Your task to perform on an android device: Open calendar and show me the third week of next month Image 0: 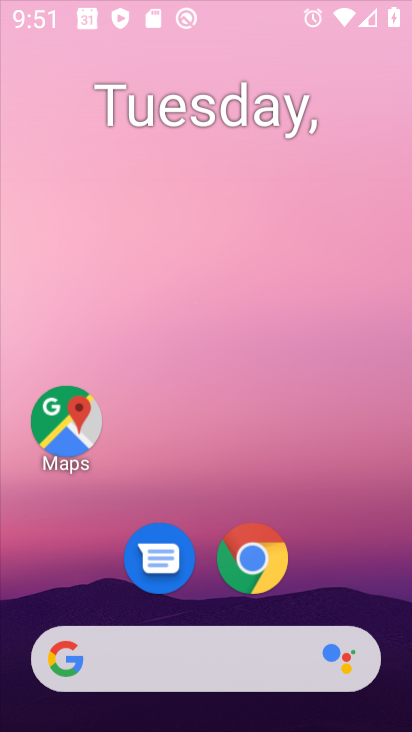
Step 0: drag from (352, 650) to (29, 26)
Your task to perform on an android device: Open calendar and show me the third week of next month Image 1: 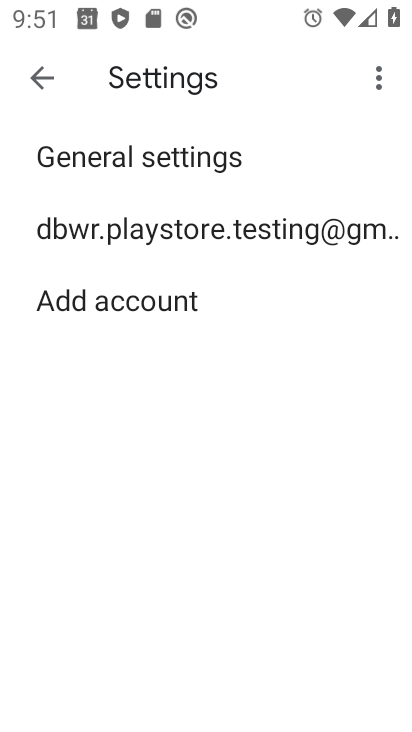
Step 1: click (36, 75)
Your task to perform on an android device: Open calendar and show me the third week of next month Image 2: 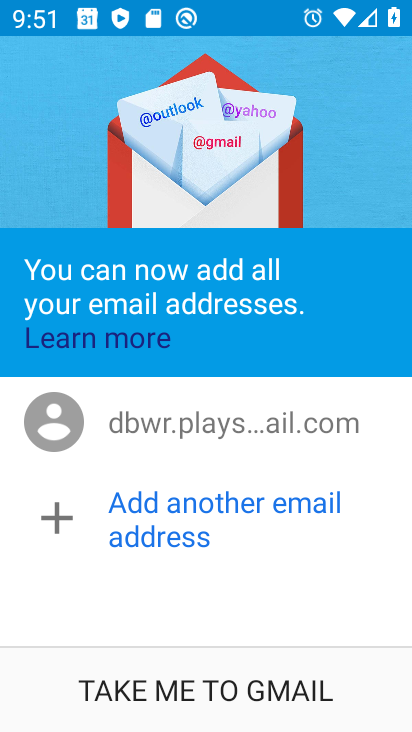
Step 2: press back button
Your task to perform on an android device: Open calendar and show me the third week of next month Image 3: 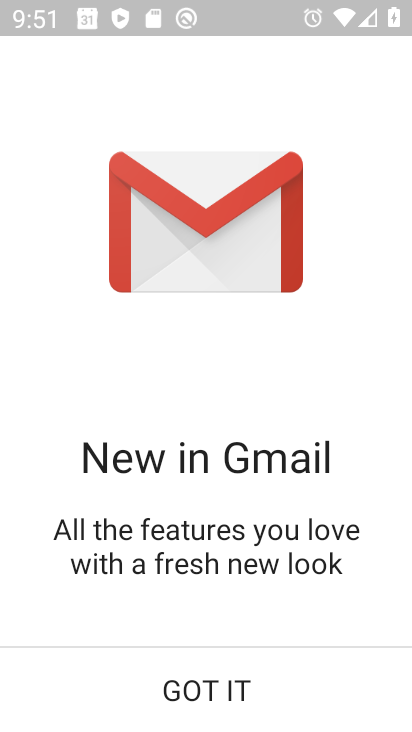
Step 3: press back button
Your task to perform on an android device: Open calendar and show me the third week of next month Image 4: 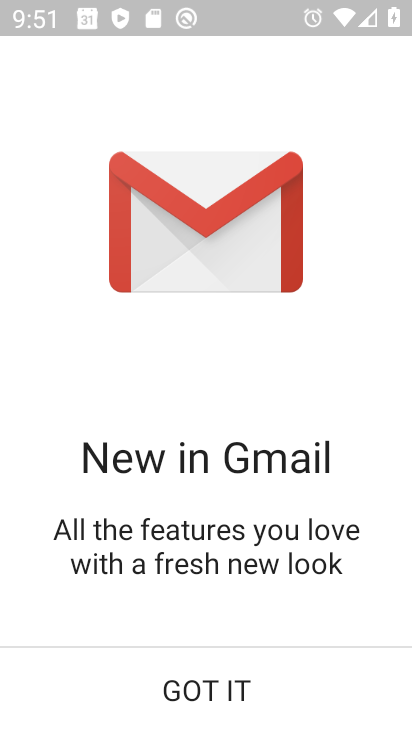
Step 4: press back button
Your task to perform on an android device: Open calendar and show me the third week of next month Image 5: 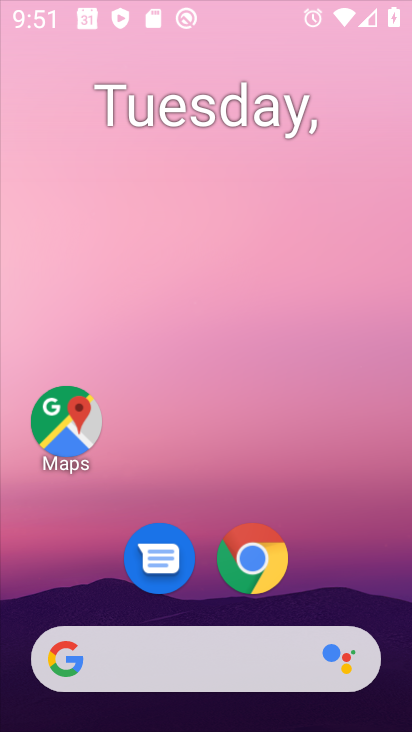
Step 5: press back button
Your task to perform on an android device: Open calendar and show me the third week of next month Image 6: 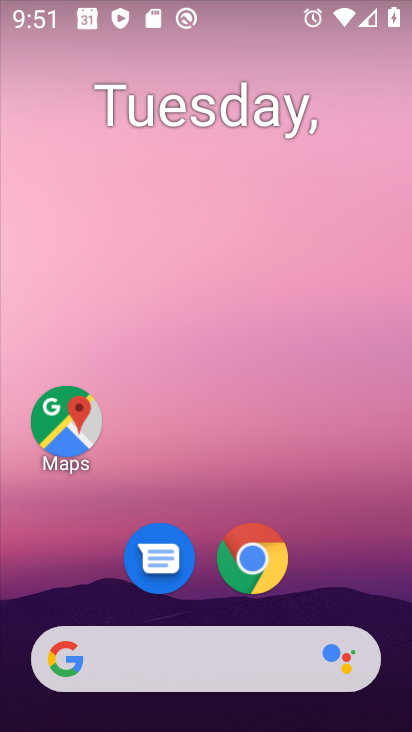
Step 6: drag from (321, 689) to (188, 112)
Your task to perform on an android device: Open calendar and show me the third week of next month Image 7: 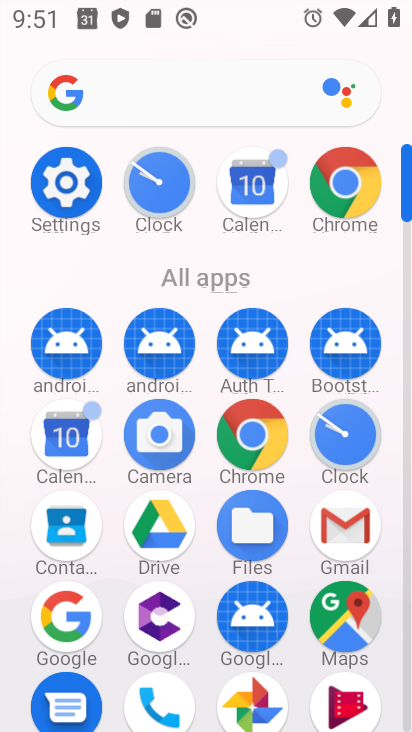
Step 7: click (60, 431)
Your task to perform on an android device: Open calendar and show me the third week of next month Image 8: 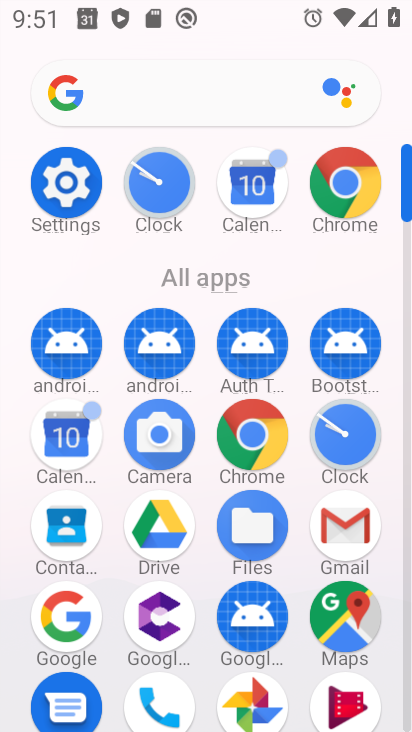
Step 8: click (59, 439)
Your task to perform on an android device: Open calendar and show me the third week of next month Image 9: 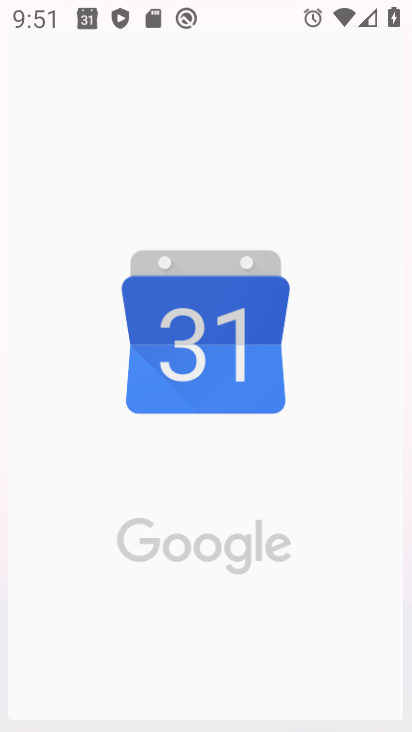
Step 9: click (59, 439)
Your task to perform on an android device: Open calendar and show me the third week of next month Image 10: 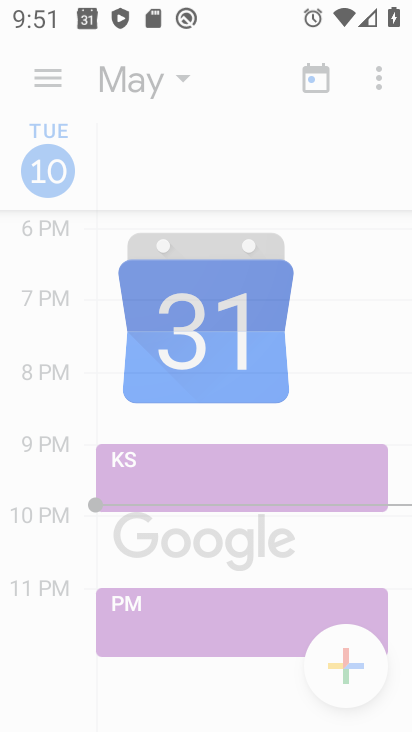
Step 10: click (59, 439)
Your task to perform on an android device: Open calendar and show me the third week of next month Image 11: 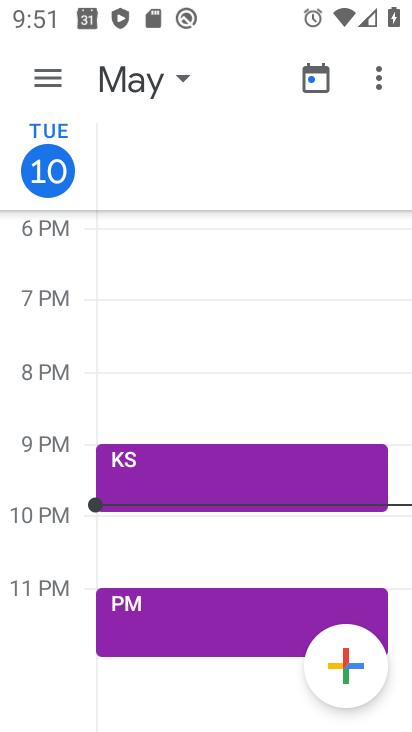
Step 11: click (180, 80)
Your task to perform on an android device: Open calendar and show me the third week of next month Image 12: 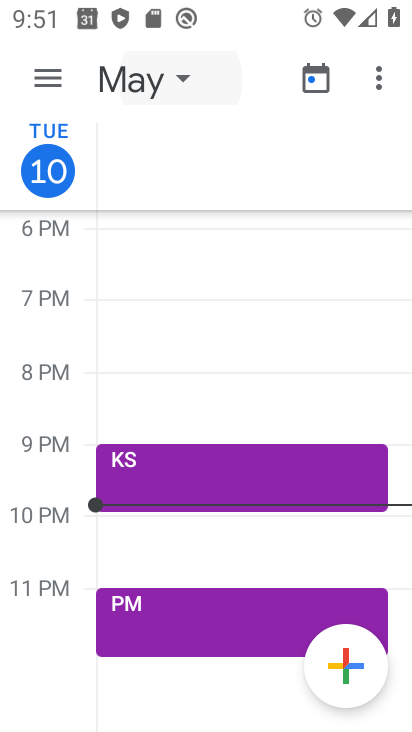
Step 12: click (180, 80)
Your task to perform on an android device: Open calendar and show me the third week of next month Image 13: 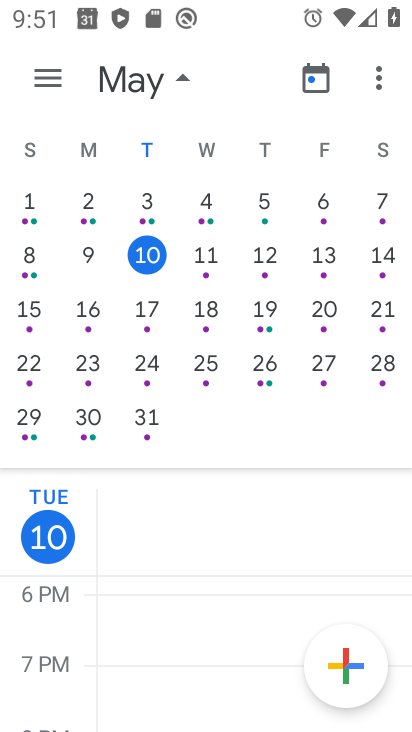
Step 13: click (180, 80)
Your task to perform on an android device: Open calendar and show me the third week of next month Image 14: 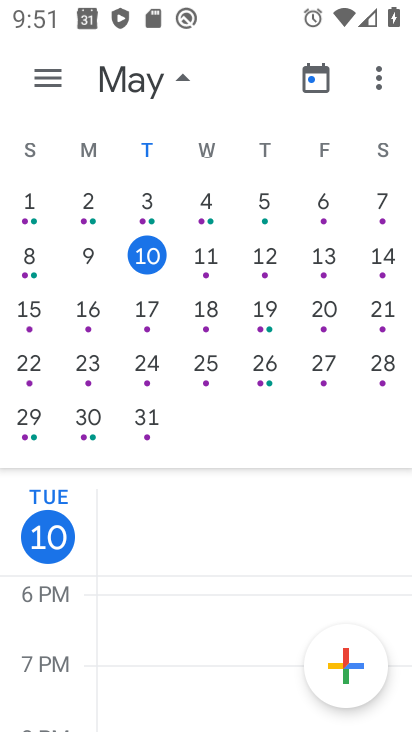
Step 14: drag from (269, 270) to (22, 336)
Your task to perform on an android device: Open calendar and show me the third week of next month Image 15: 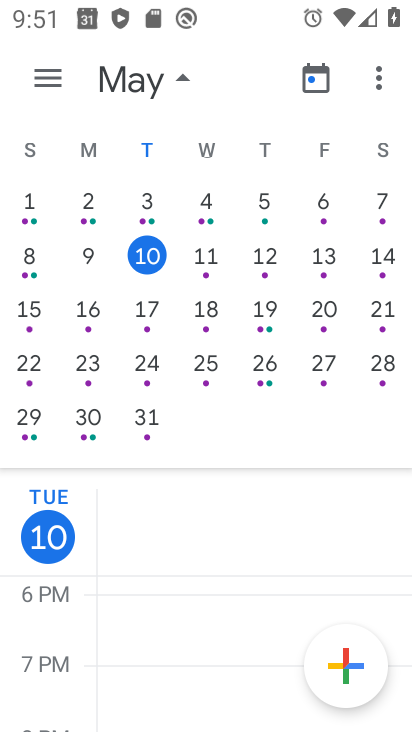
Step 15: drag from (262, 328) to (6, 359)
Your task to perform on an android device: Open calendar and show me the third week of next month Image 16: 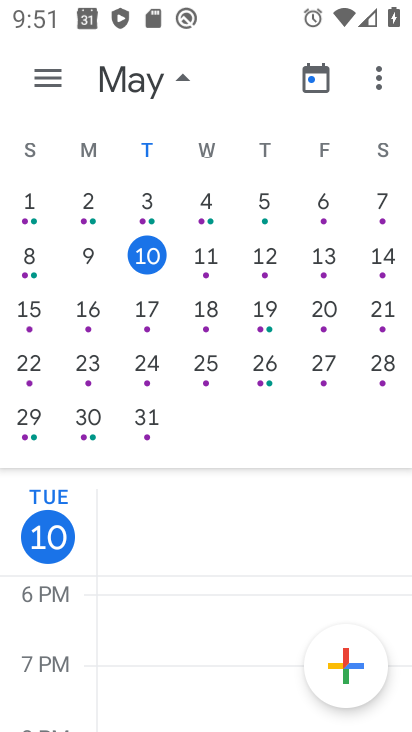
Step 16: drag from (213, 320) to (15, 315)
Your task to perform on an android device: Open calendar and show me the third week of next month Image 17: 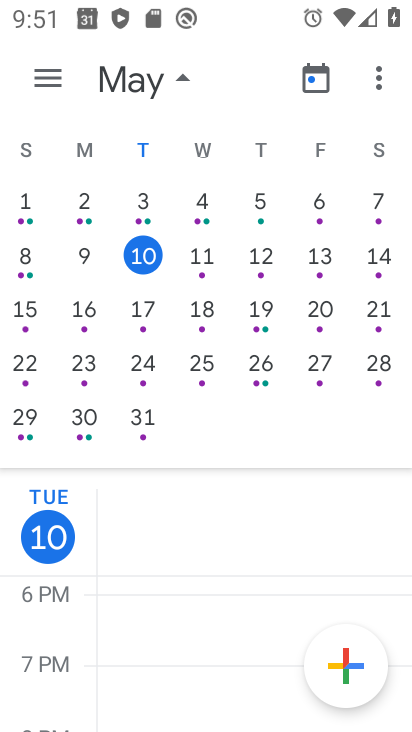
Step 17: drag from (211, 285) to (17, 318)
Your task to perform on an android device: Open calendar and show me the third week of next month Image 18: 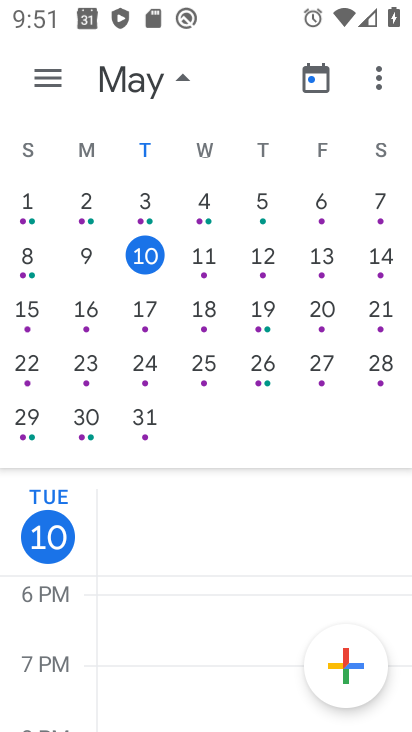
Step 18: drag from (224, 296) to (3, 312)
Your task to perform on an android device: Open calendar and show me the third week of next month Image 19: 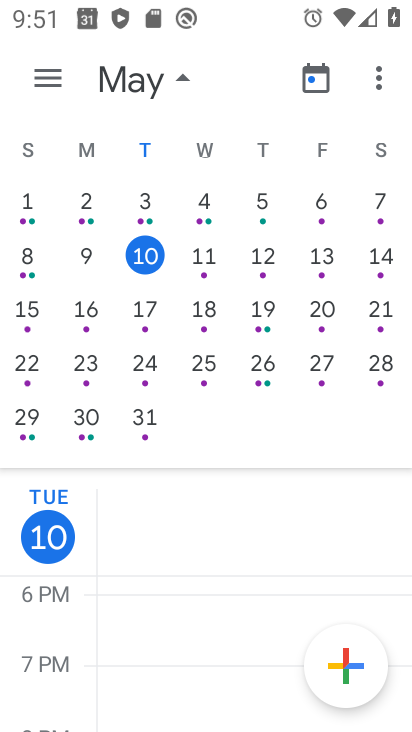
Step 19: drag from (266, 274) to (24, 345)
Your task to perform on an android device: Open calendar and show me the third week of next month Image 20: 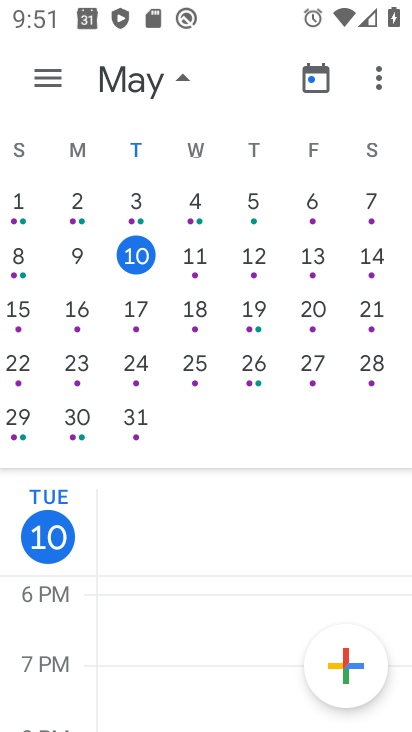
Step 20: drag from (269, 268) to (9, 301)
Your task to perform on an android device: Open calendar and show me the third week of next month Image 21: 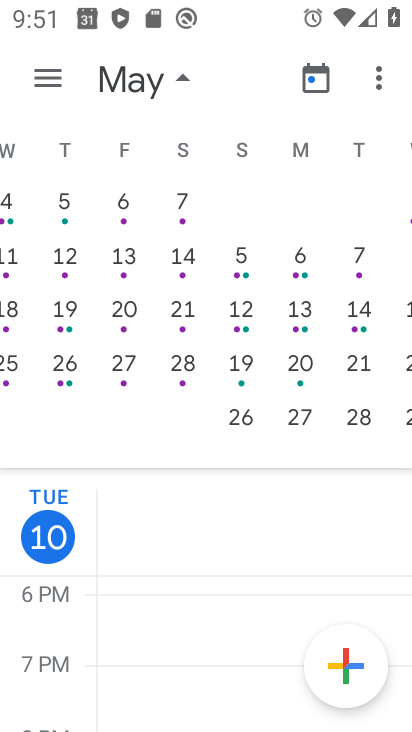
Step 21: drag from (300, 269) to (35, 276)
Your task to perform on an android device: Open calendar and show me the third week of next month Image 22: 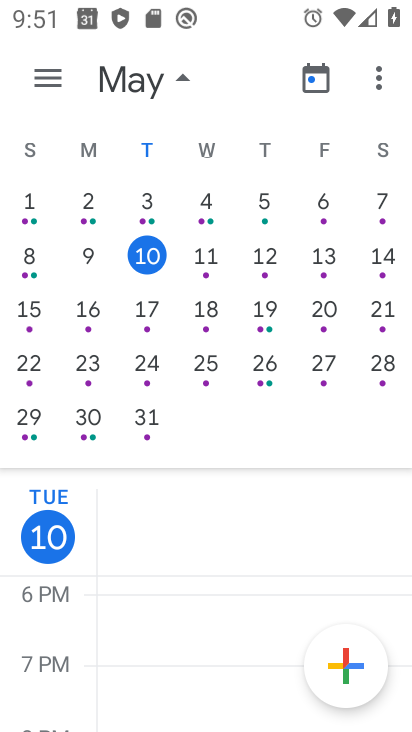
Step 22: drag from (111, 344) to (31, 367)
Your task to perform on an android device: Open calendar and show me the third week of next month Image 23: 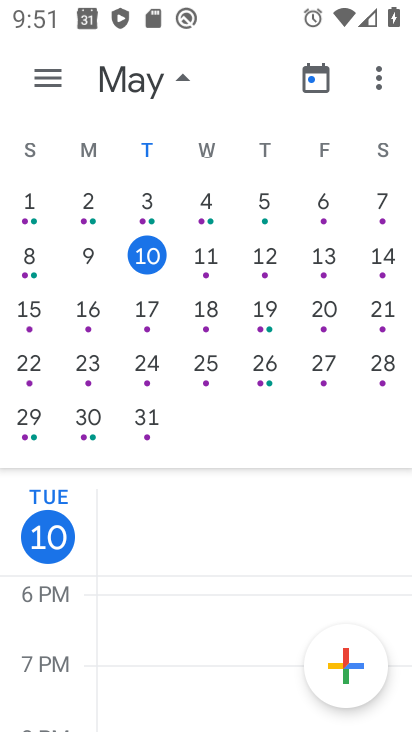
Step 23: drag from (240, 298) to (74, 376)
Your task to perform on an android device: Open calendar and show me the third week of next month Image 24: 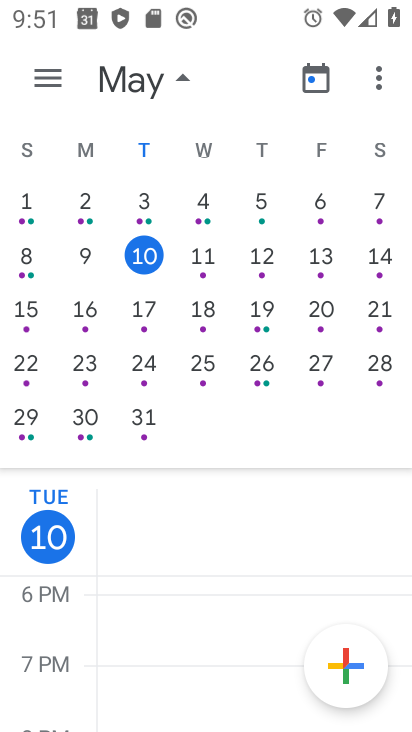
Step 24: drag from (372, 289) to (37, 317)
Your task to perform on an android device: Open calendar and show me the third week of next month Image 25: 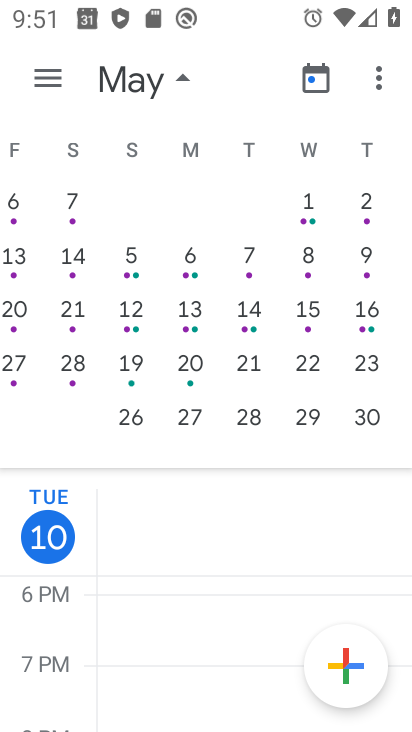
Step 25: drag from (150, 297) to (47, 310)
Your task to perform on an android device: Open calendar and show me the third week of next month Image 26: 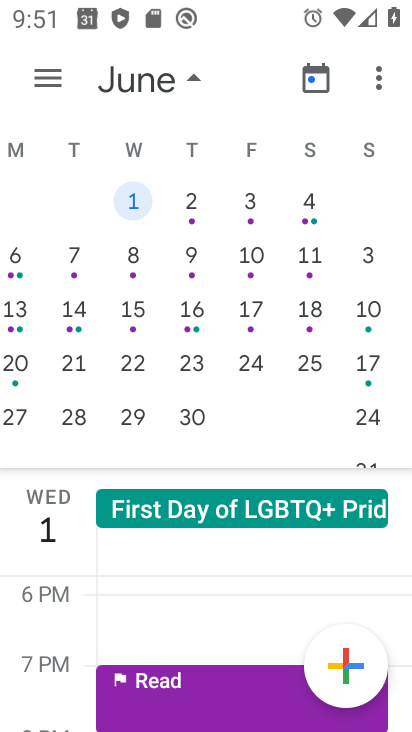
Step 26: drag from (190, 303) to (12, 335)
Your task to perform on an android device: Open calendar and show me the third week of next month Image 27: 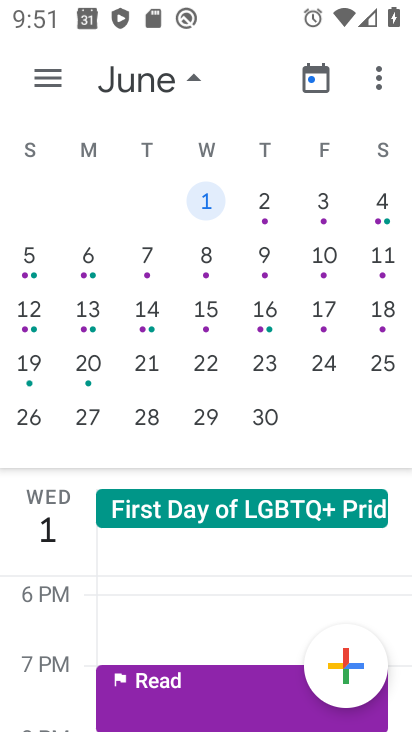
Step 27: click (198, 310)
Your task to perform on an android device: Open calendar and show me the third week of next month Image 28: 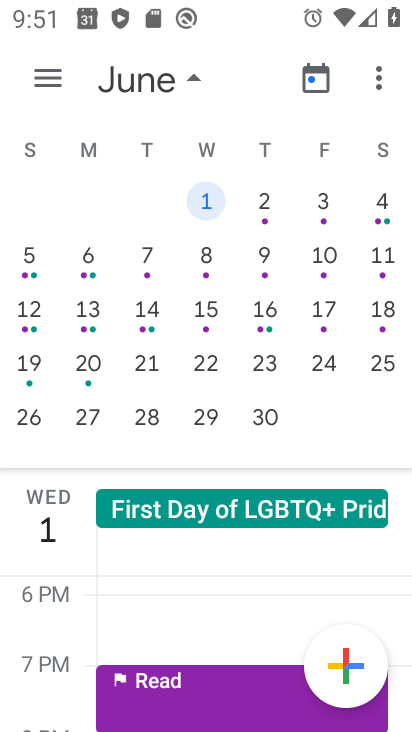
Step 28: click (198, 310)
Your task to perform on an android device: Open calendar and show me the third week of next month Image 29: 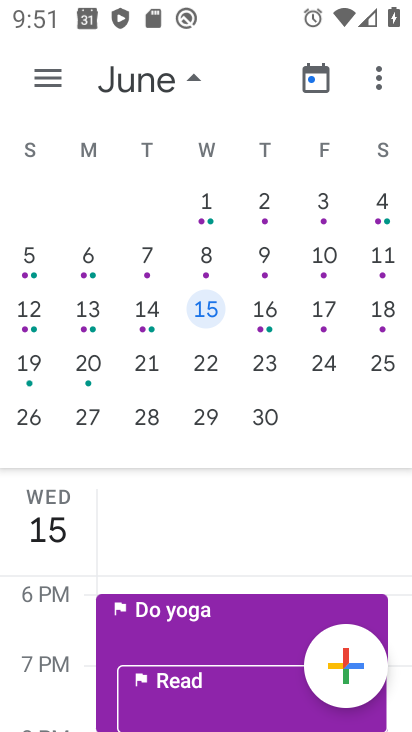
Step 29: click (199, 310)
Your task to perform on an android device: Open calendar and show me the third week of next month Image 30: 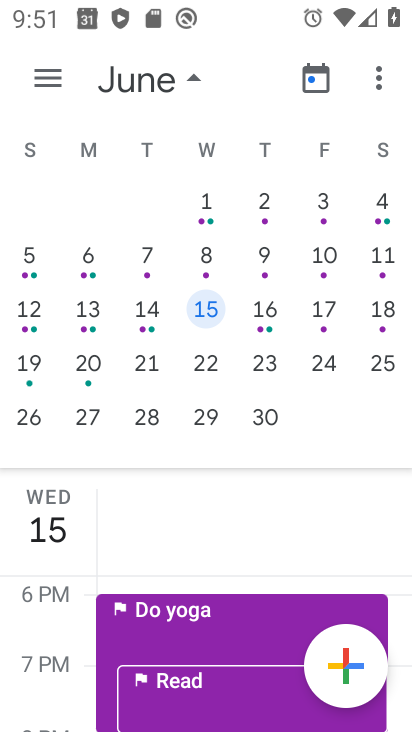
Step 30: task complete